Your task to perform on an android device: turn on showing notifications on the lock screen Image 0: 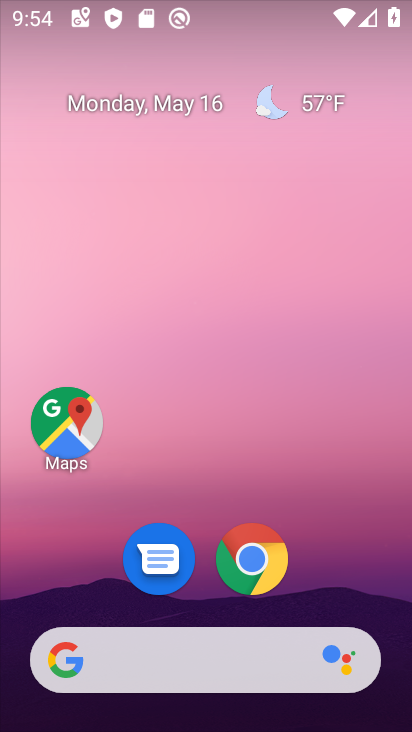
Step 0: drag from (320, 519) to (239, 127)
Your task to perform on an android device: turn on showing notifications on the lock screen Image 1: 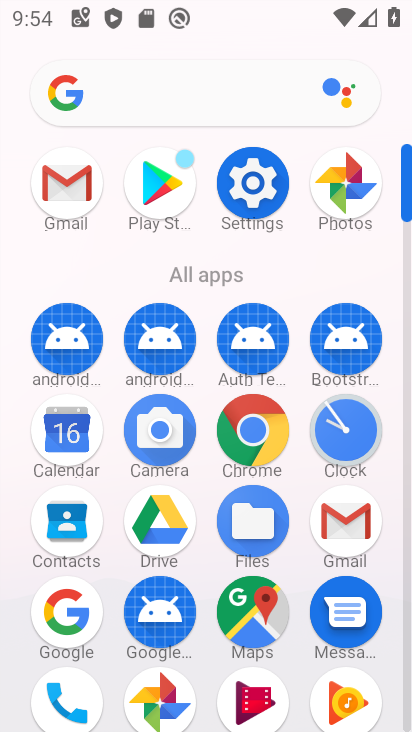
Step 1: click (256, 187)
Your task to perform on an android device: turn on showing notifications on the lock screen Image 2: 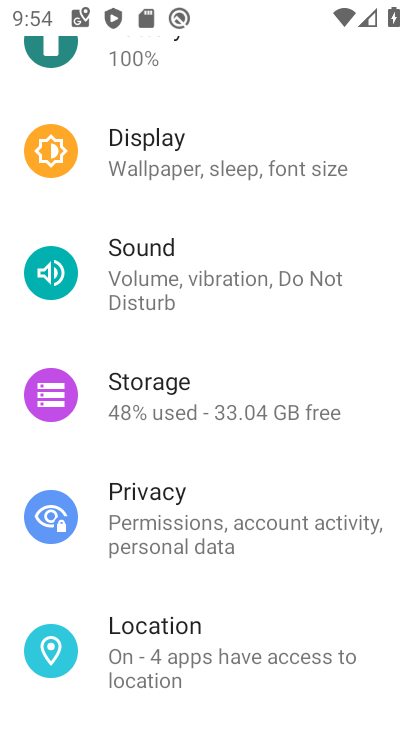
Step 2: drag from (205, 150) to (262, 632)
Your task to perform on an android device: turn on showing notifications on the lock screen Image 3: 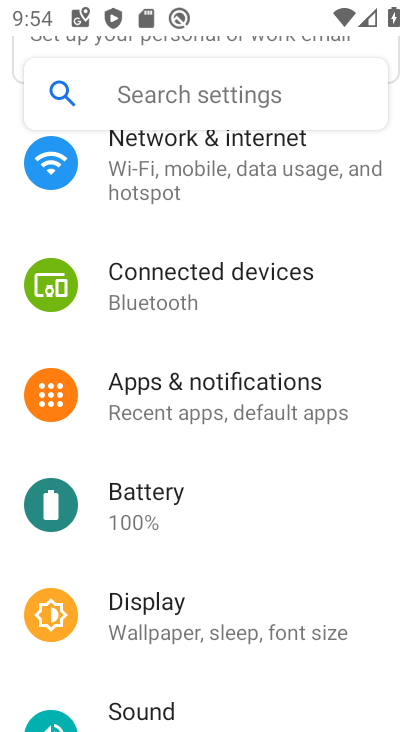
Step 3: click (243, 376)
Your task to perform on an android device: turn on showing notifications on the lock screen Image 4: 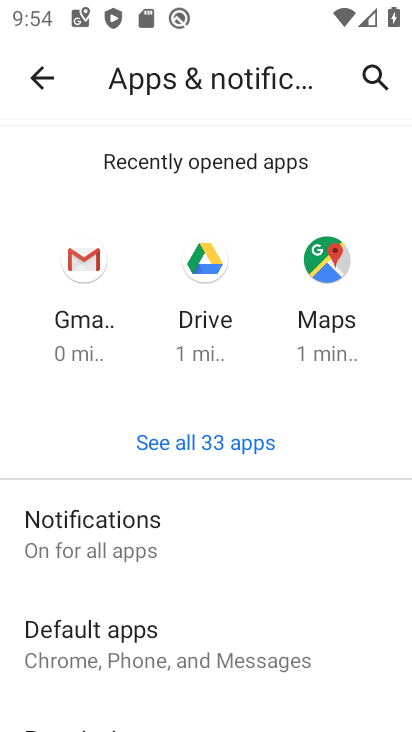
Step 4: click (141, 516)
Your task to perform on an android device: turn on showing notifications on the lock screen Image 5: 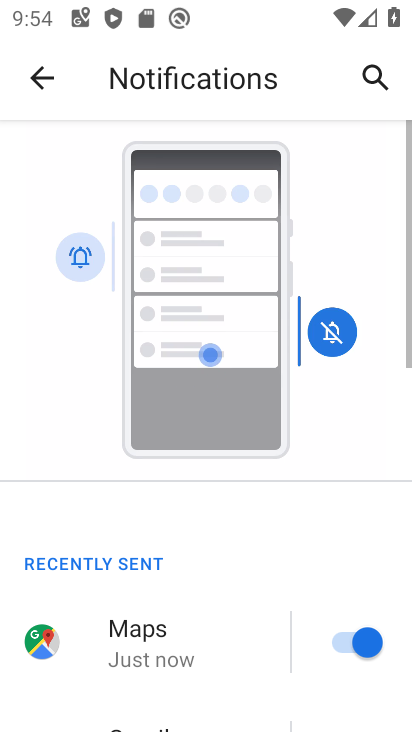
Step 5: drag from (232, 583) to (213, 61)
Your task to perform on an android device: turn on showing notifications on the lock screen Image 6: 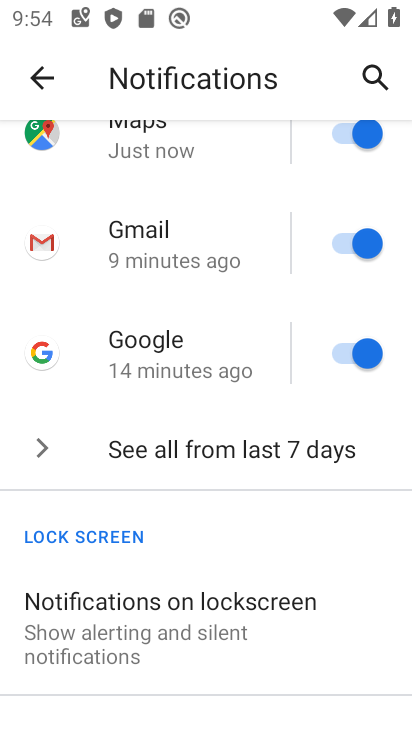
Step 6: click (204, 626)
Your task to perform on an android device: turn on showing notifications on the lock screen Image 7: 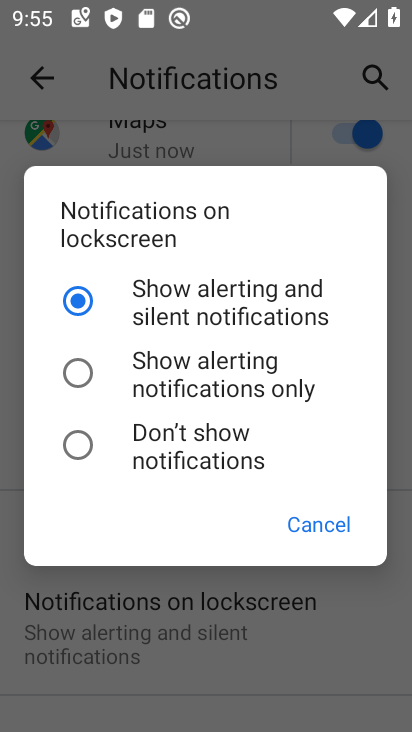
Step 7: click (208, 386)
Your task to perform on an android device: turn on showing notifications on the lock screen Image 8: 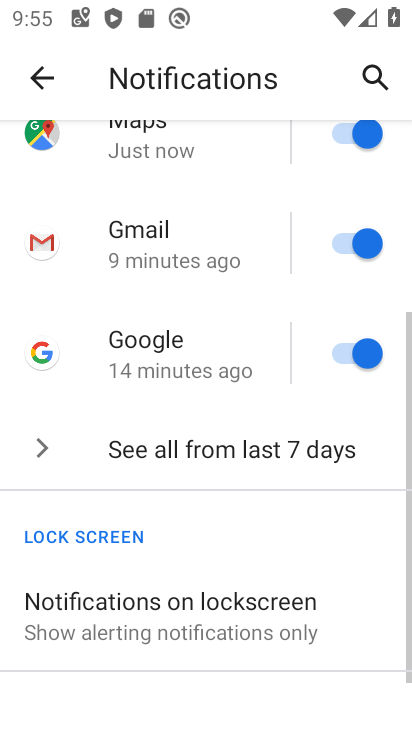
Step 8: task complete